Your task to perform on an android device: Turn on the flashlight Image 0: 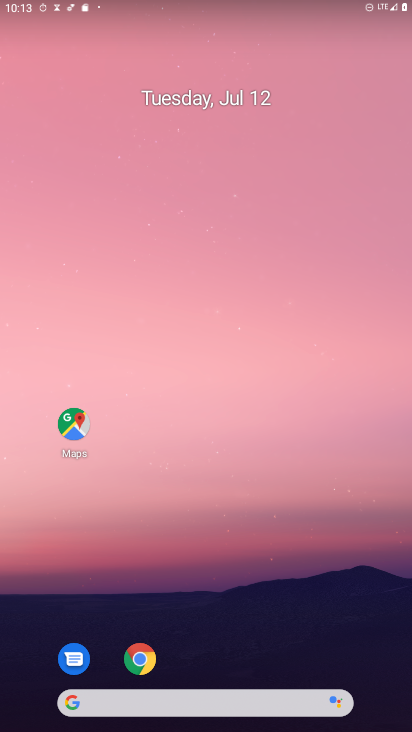
Step 0: drag from (197, 698) to (221, 243)
Your task to perform on an android device: Turn on the flashlight Image 1: 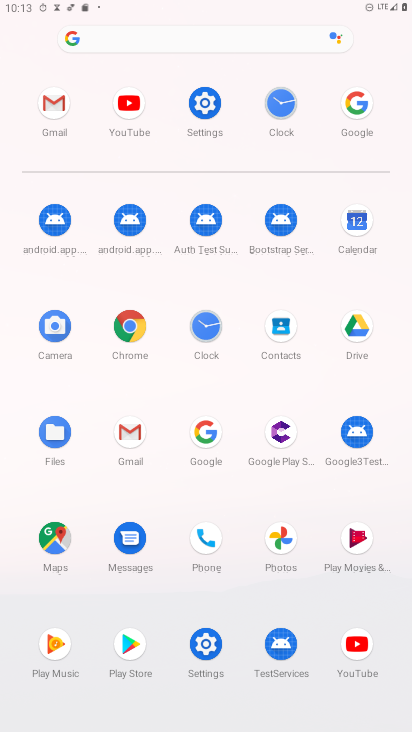
Step 1: click (203, 103)
Your task to perform on an android device: Turn on the flashlight Image 2: 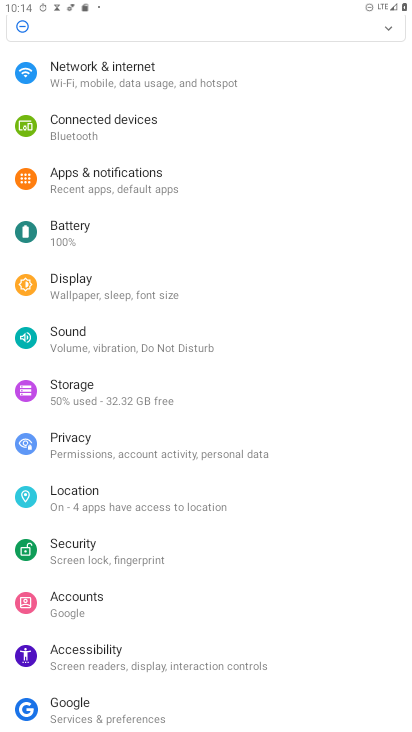
Step 2: click (72, 284)
Your task to perform on an android device: Turn on the flashlight Image 3: 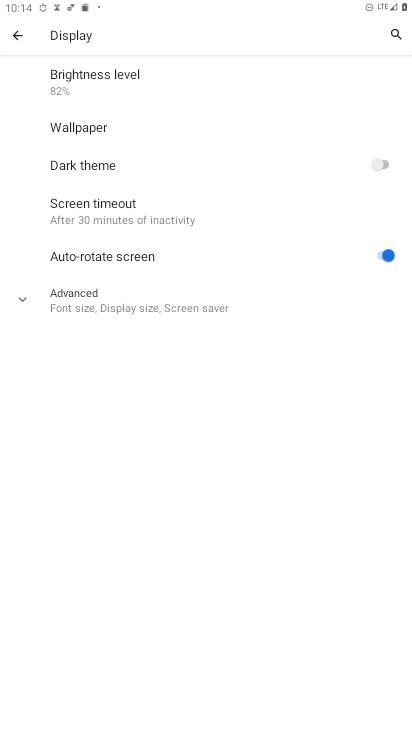
Step 3: click (224, 305)
Your task to perform on an android device: Turn on the flashlight Image 4: 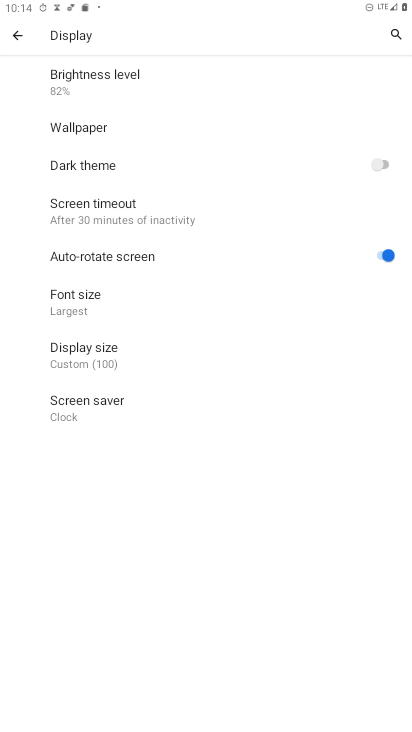
Step 4: press back button
Your task to perform on an android device: Turn on the flashlight Image 5: 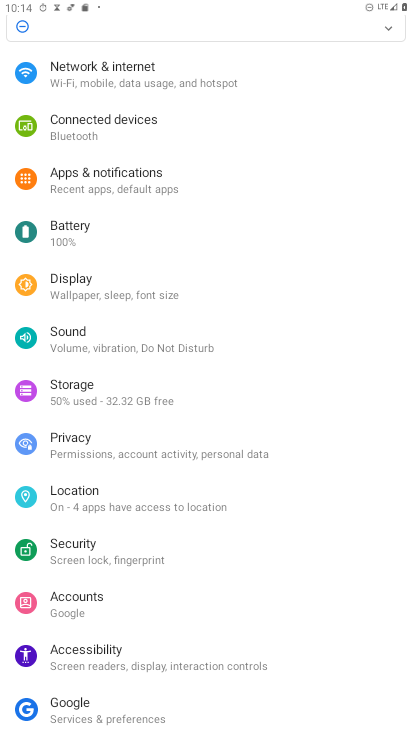
Step 5: click (100, 295)
Your task to perform on an android device: Turn on the flashlight Image 6: 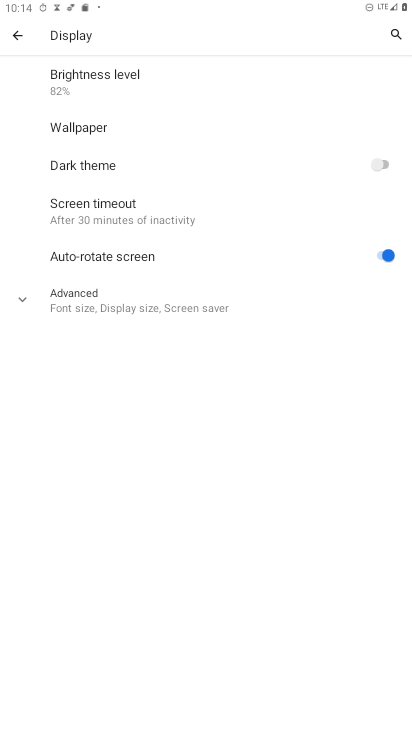
Step 6: click (90, 136)
Your task to perform on an android device: Turn on the flashlight Image 7: 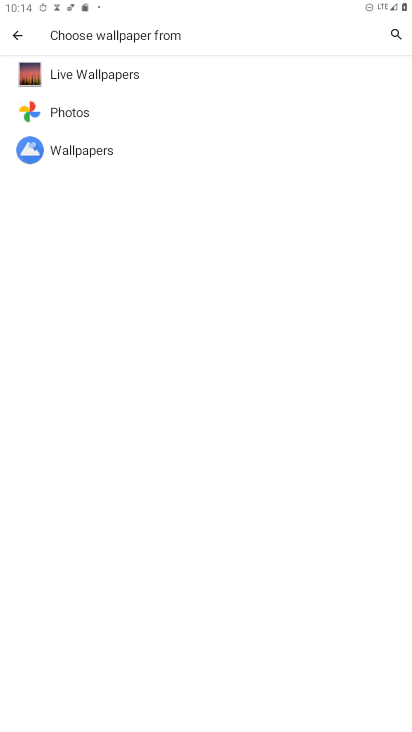
Step 7: task complete